Your task to perform on an android device: Search for vegetarian restaurants on Maps Image 0: 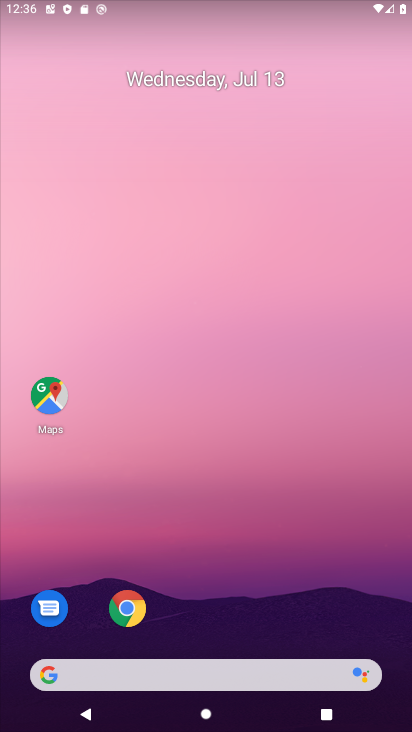
Step 0: click (38, 385)
Your task to perform on an android device: Search for vegetarian restaurants on Maps Image 1: 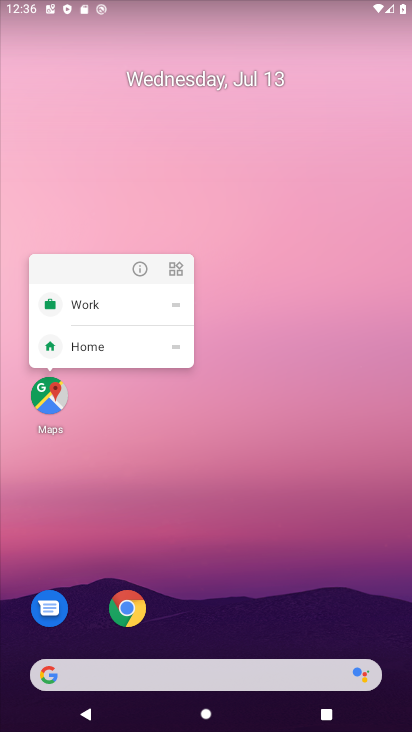
Step 1: click (49, 392)
Your task to perform on an android device: Search for vegetarian restaurants on Maps Image 2: 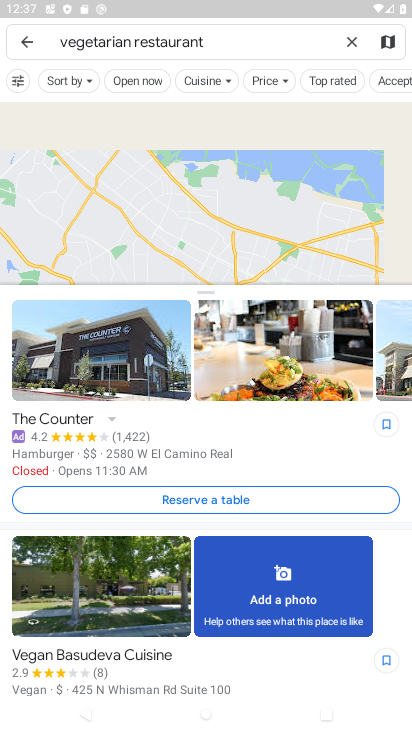
Step 2: task complete